Your task to perform on an android device: open chrome and create a bookmark for the current page Image 0: 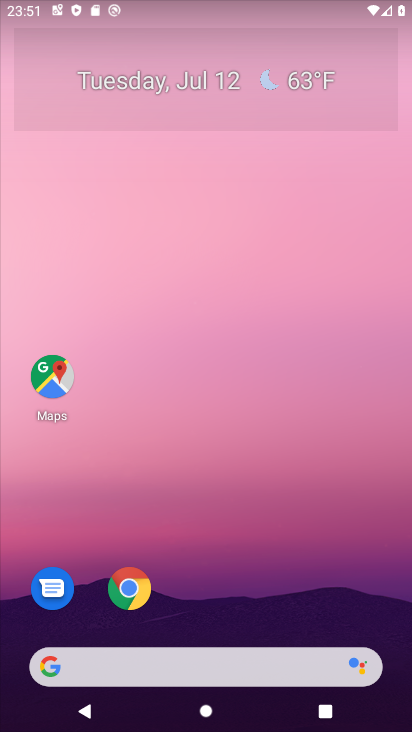
Step 0: click (134, 591)
Your task to perform on an android device: open chrome and create a bookmark for the current page Image 1: 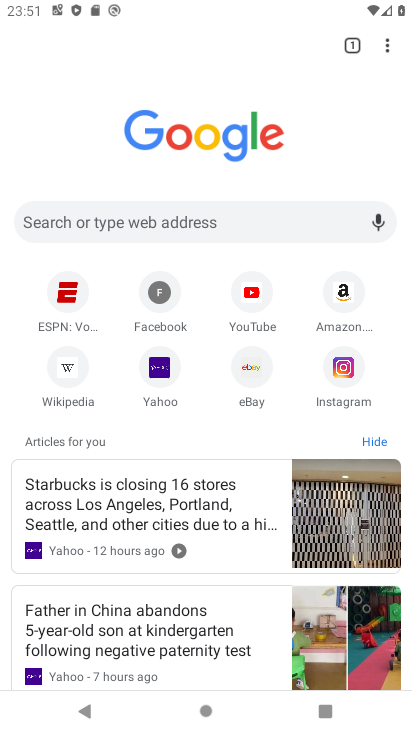
Step 1: click (385, 43)
Your task to perform on an android device: open chrome and create a bookmark for the current page Image 2: 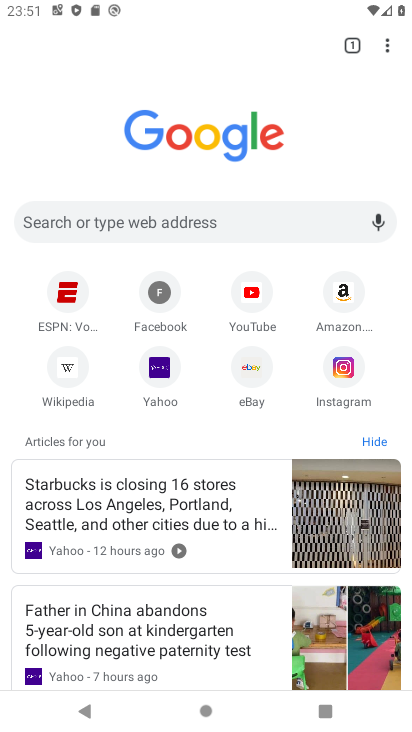
Step 2: click (381, 42)
Your task to perform on an android device: open chrome and create a bookmark for the current page Image 3: 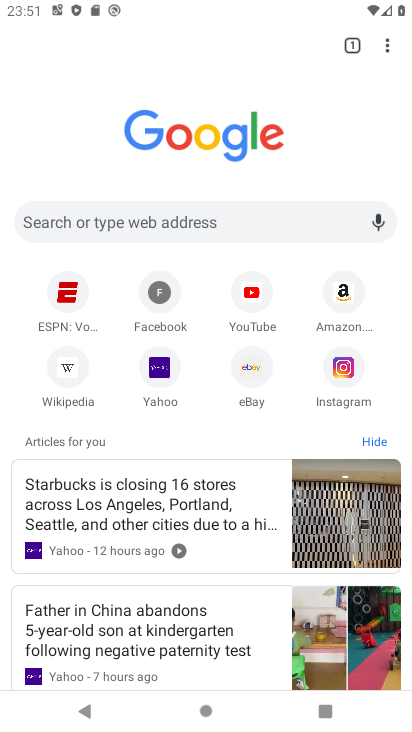
Step 3: click (380, 40)
Your task to perform on an android device: open chrome and create a bookmark for the current page Image 4: 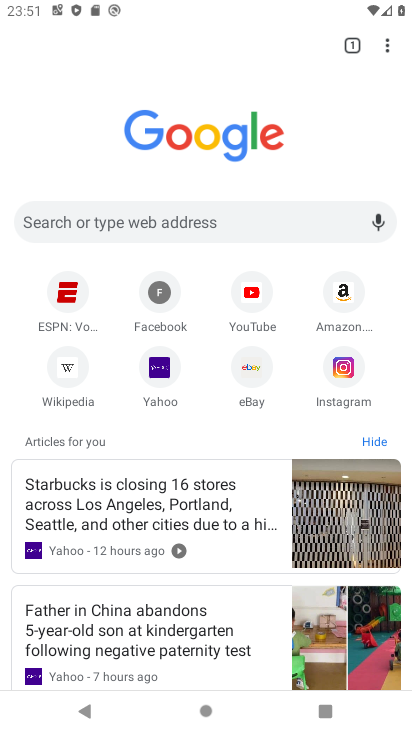
Step 4: click (384, 47)
Your task to perform on an android device: open chrome and create a bookmark for the current page Image 5: 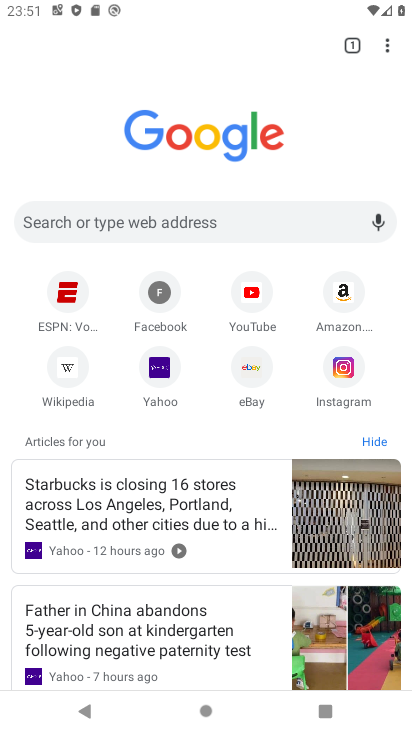
Step 5: task complete